Your task to perform on an android device: Open maps Image 0: 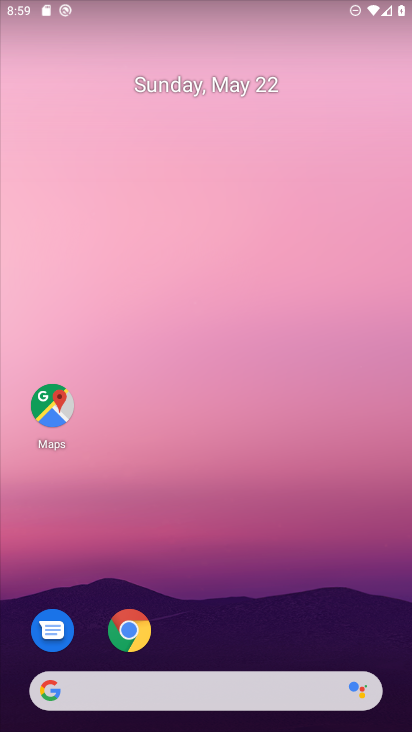
Step 0: click (60, 438)
Your task to perform on an android device: Open maps Image 1: 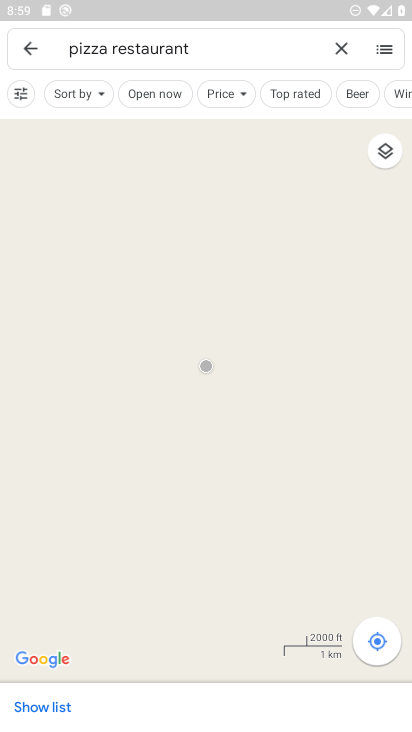
Step 1: task complete